Your task to perform on an android device: Open the Play Movies app and select the watchlist tab. Image 0: 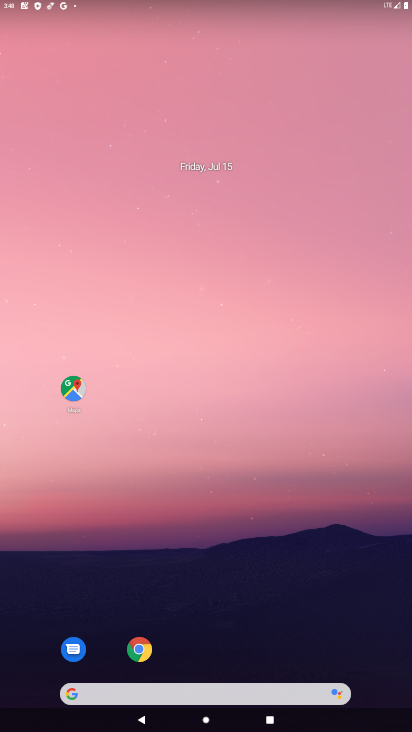
Step 0: drag from (183, 652) to (171, 268)
Your task to perform on an android device: Open the Play Movies app and select the watchlist tab. Image 1: 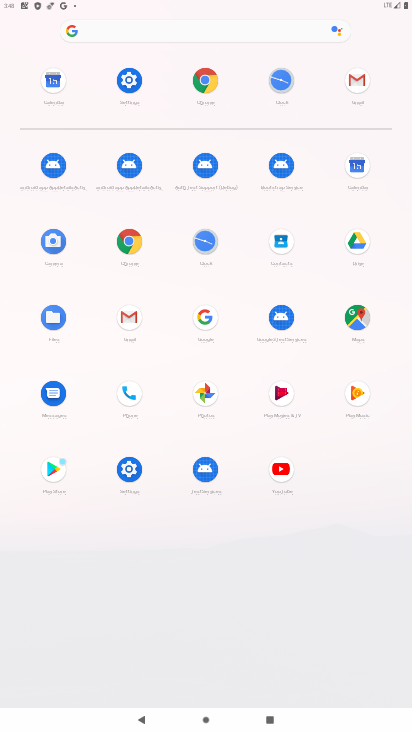
Step 1: click (272, 394)
Your task to perform on an android device: Open the Play Movies app and select the watchlist tab. Image 2: 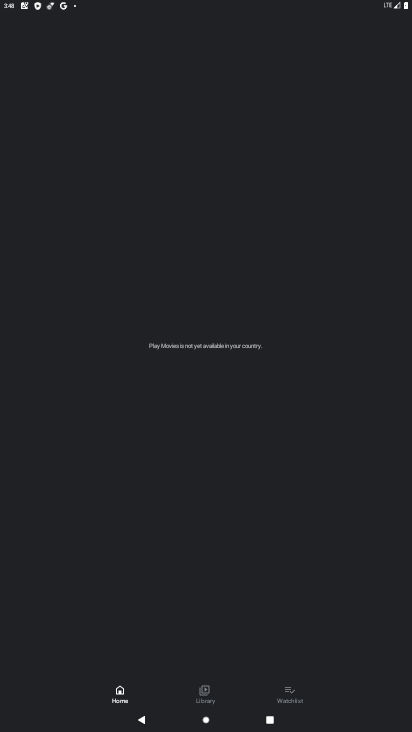
Step 2: click (298, 696)
Your task to perform on an android device: Open the Play Movies app and select the watchlist tab. Image 3: 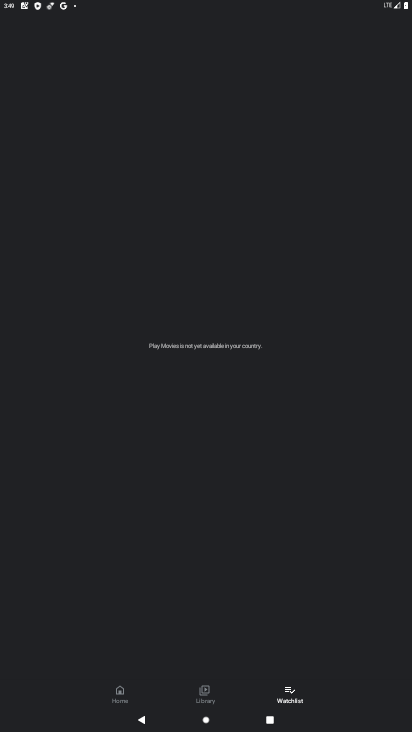
Step 3: task complete